Your task to perform on an android device: make emails show in primary in the gmail app Image 0: 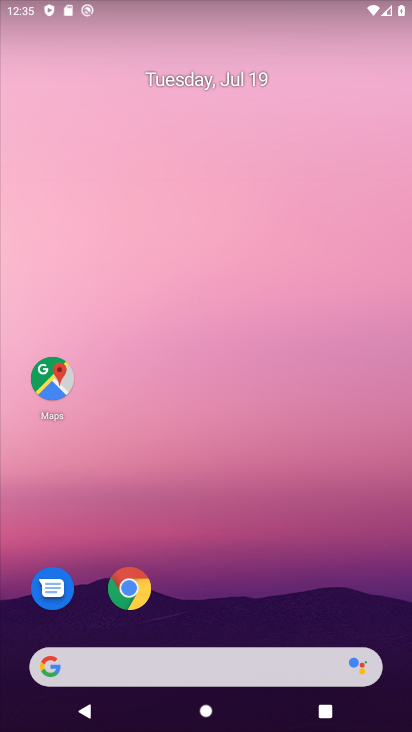
Step 0: drag from (254, 586) to (332, 34)
Your task to perform on an android device: make emails show in primary in the gmail app Image 1: 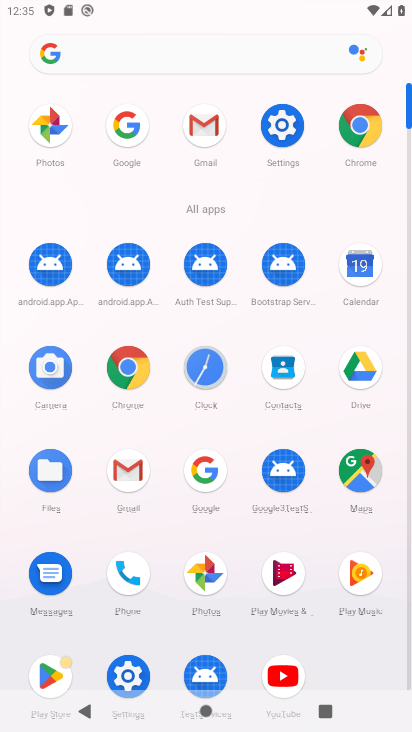
Step 1: click (190, 132)
Your task to perform on an android device: make emails show in primary in the gmail app Image 2: 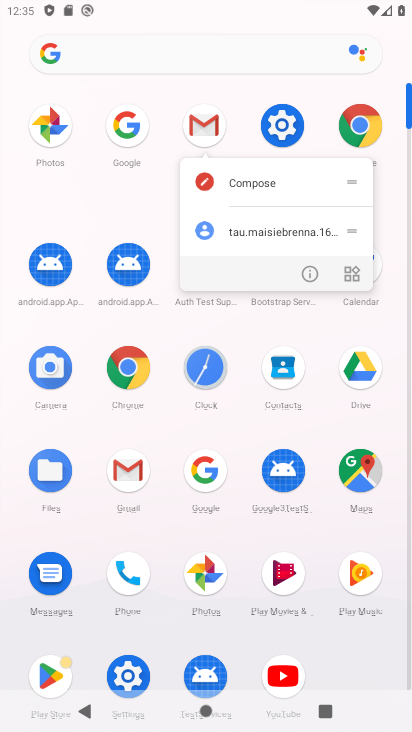
Step 2: click (190, 132)
Your task to perform on an android device: make emails show in primary in the gmail app Image 3: 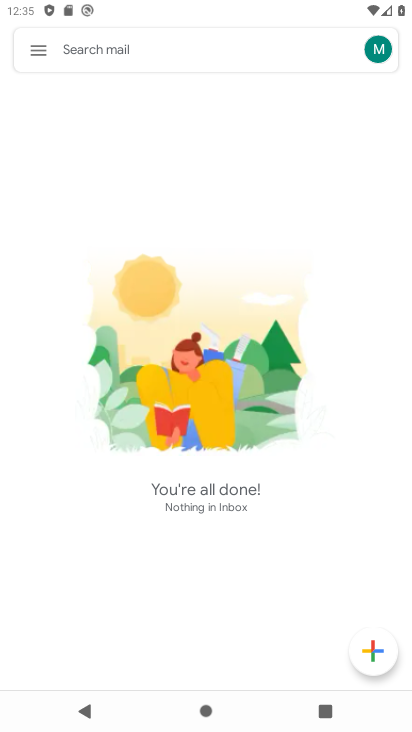
Step 3: click (37, 44)
Your task to perform on an android device: make emails show in primary in the gmail app Image 4: 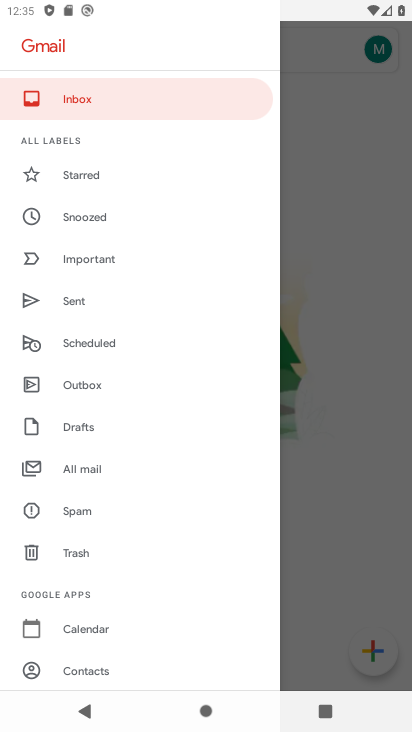
Step 4: drag from (107, 551) to (66, 27)
Your task to perform on an android device: make emails show in primary in the gmail app Image 5: 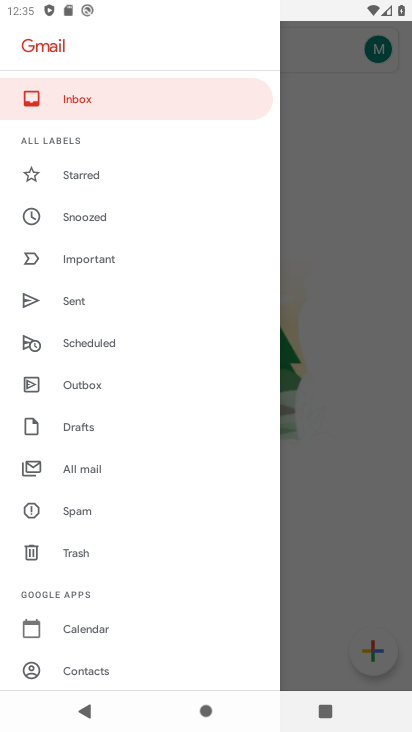
Step 5: drag from (55, 622) to (82, 178)
Your task to perform on an android device: make emails show in primary in the gmail app Image 6: 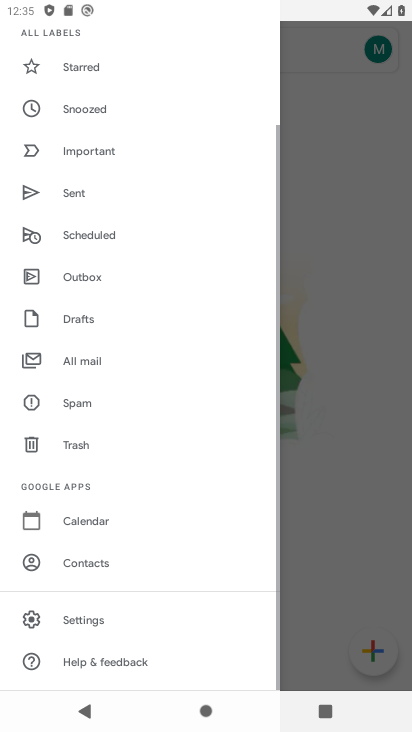
Step 6: click (97, 617)
Your task to perform on an android device: make emails show in primary in the gmail app Image 7: 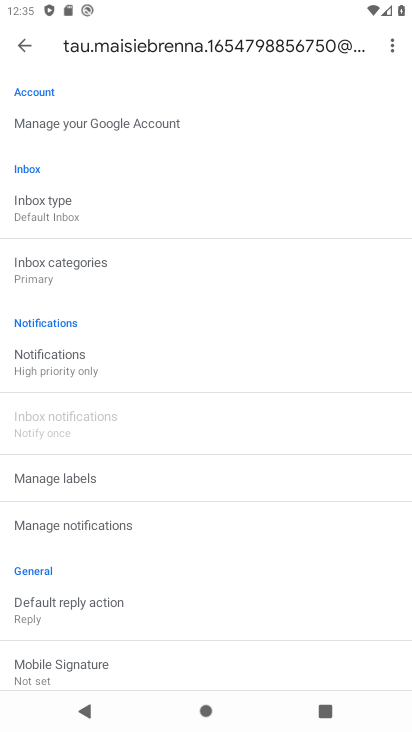
Step 7: task complete